Your task to perform on an android device: all mails in gmail Image 0: 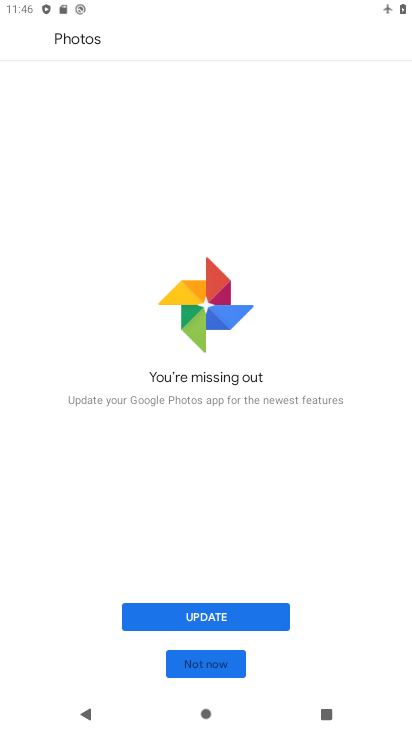
Step 0: press back button
Your task to perform on an android device: all mails in gmail Image 1: 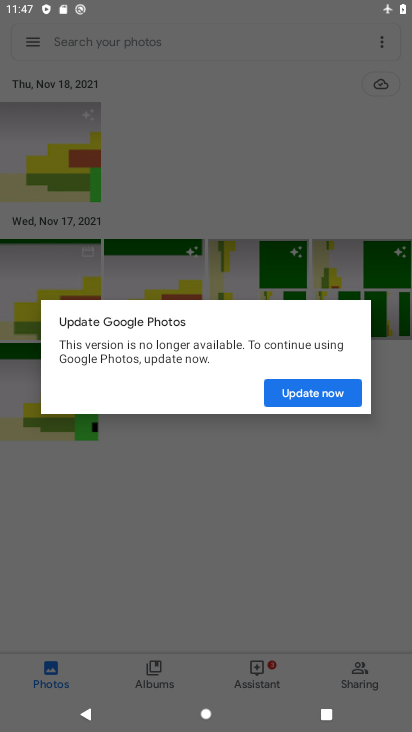
Step 1: press home button
Your task to perform on an android device: all mails in gmail Image 2: 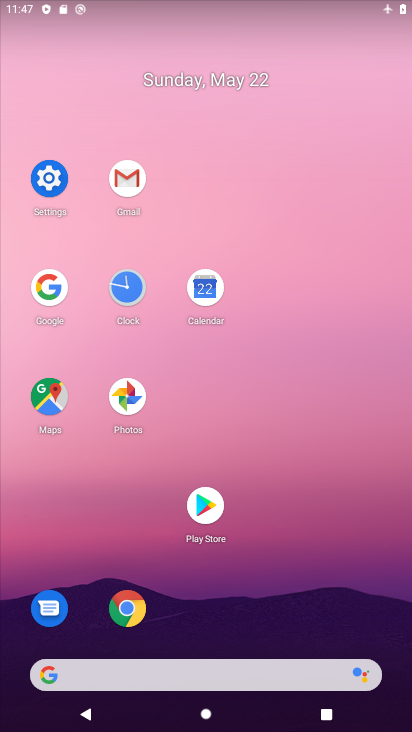
Step 2: click (137, 185)
Your task to perform on an android device: all mails in gmail Image 3: 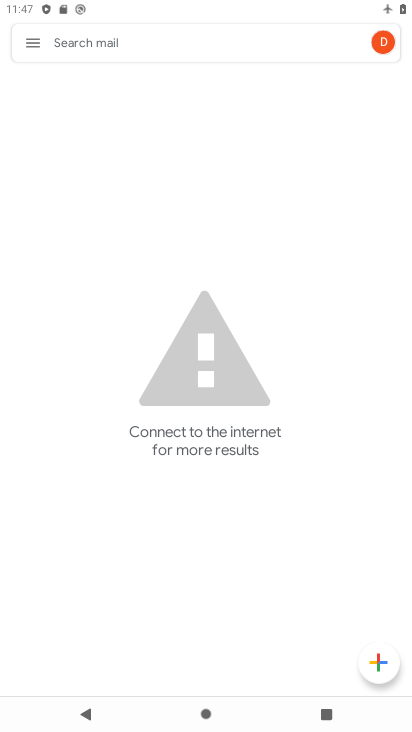
Step 3: click (25, 49)
Your task to perform on an android device: all mails in gmail Image 4: 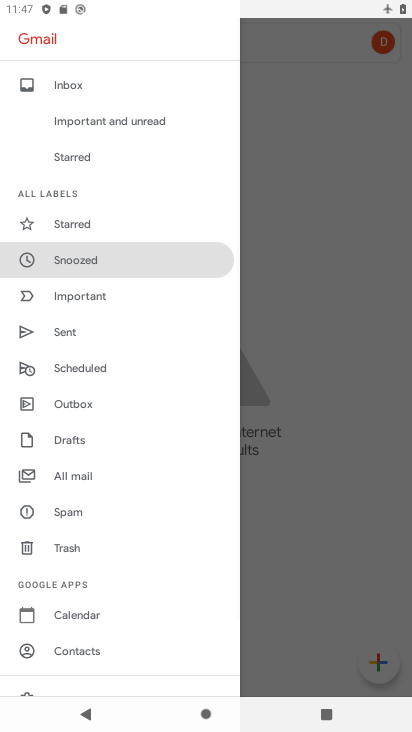
Step 4: click (76, 479)
Your task to perform on an android device: all mails in gmail Image 5: 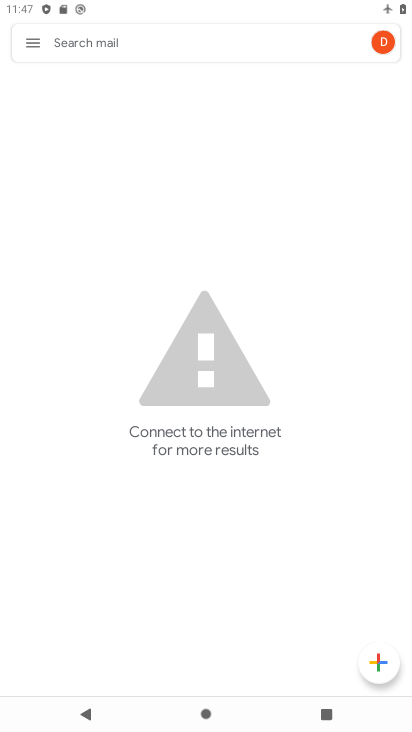
Step 5: task complete